Your task to perform on an android device: What's the weather going to be this weekend? Image 0: 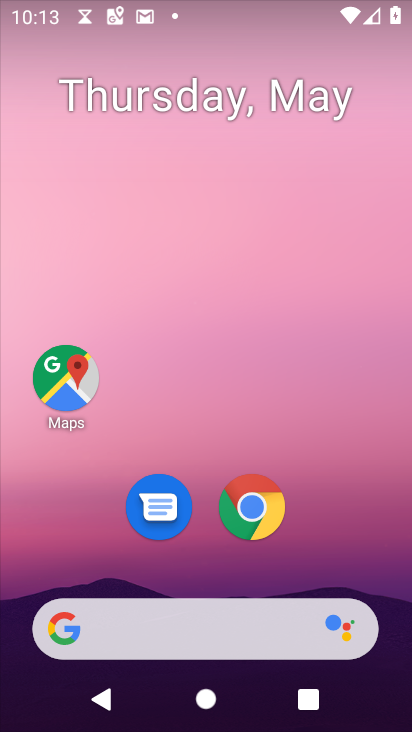
Step 0: click (231, 633)
Your task to perform on an android device: What's the weather going to be this weekend? Image 1: 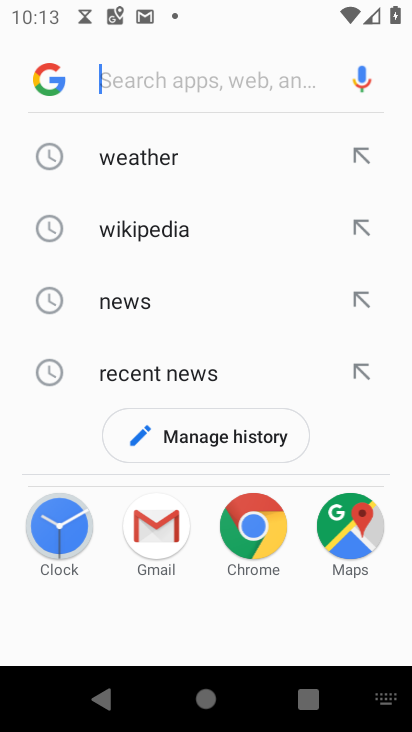
Step 1: type "weather this weekend"
Your task to perform on an android device: What's the weather going to be this weekend? Image 2: 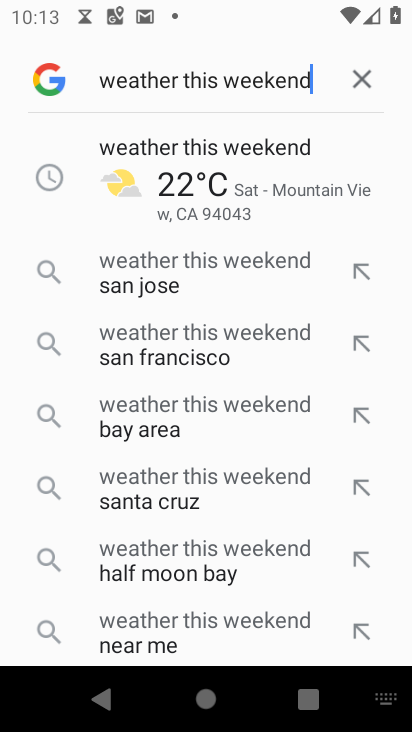
Step 2: click (275, 165)
Your task to perform on an android device: What's the weather going to be this weekend? Image 3: 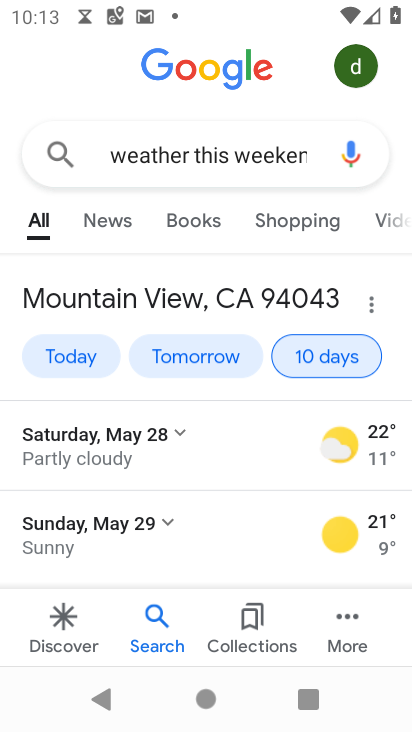
Step 3: task complete